Your task to perform on an android device: Clear the cart on bestbuy. Add "acer predator" to the cart on bestbuy Image 0: 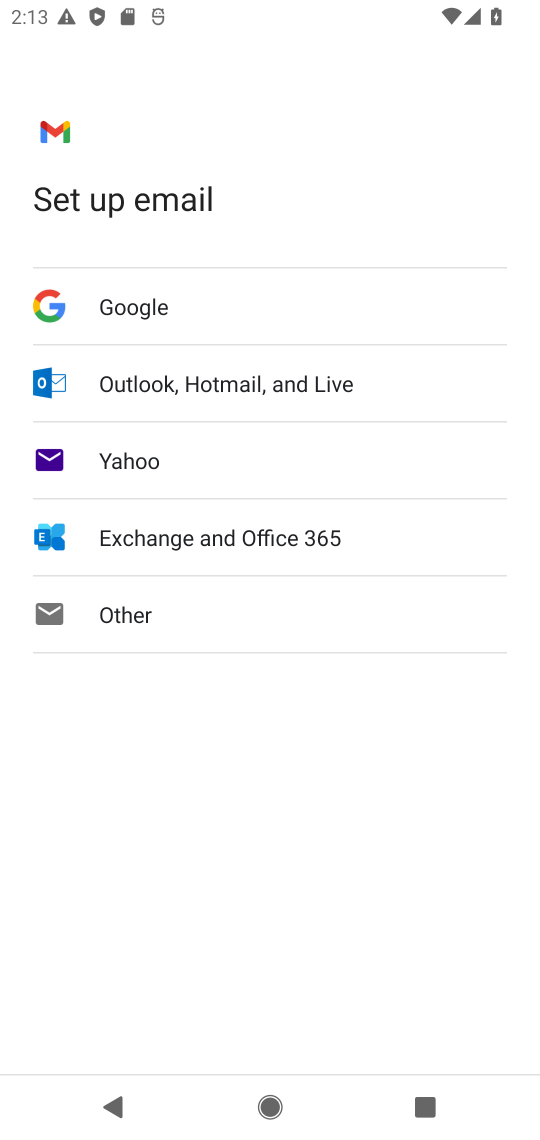
Step 0: press home button
Your task to perform on an android device: Clear the cart on bestbuy. Add "acer predator" to the cart on bestbuy Image 1: 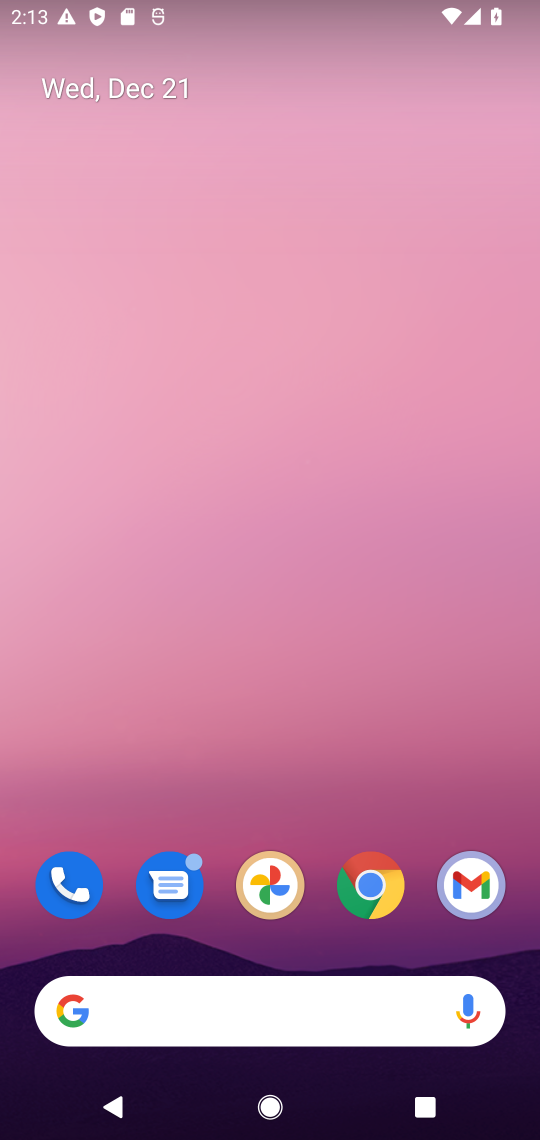
Step 1: drag from (161, 939) to (233, 422)
Your task to perform on an android device: Clear the cart on bestbuy. Add "acer predator" to the cart on bestbuy Image 2: 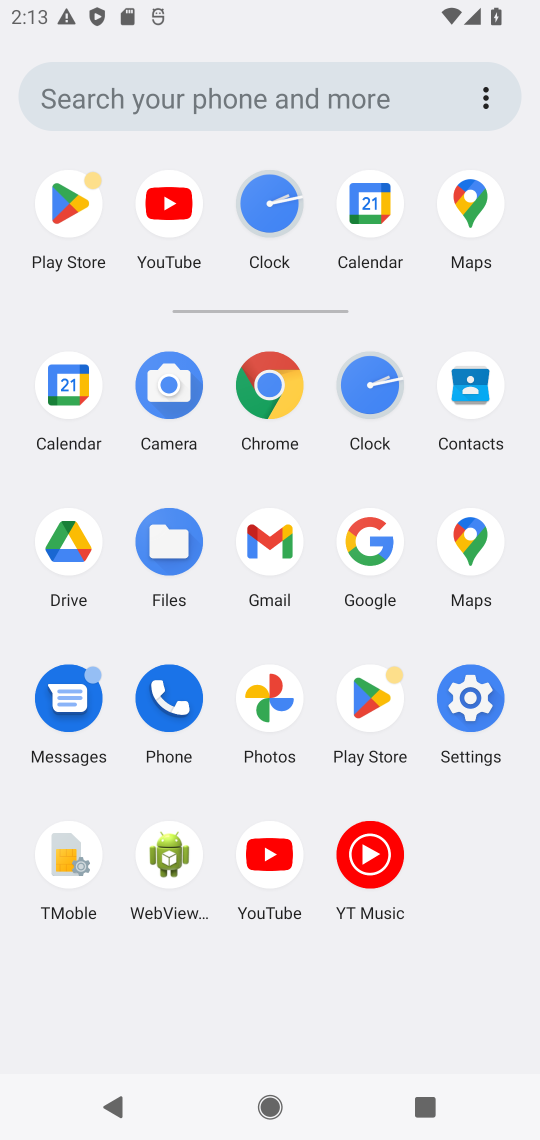
Step 2: click (356, 533)
Your task to perform on an android device: Clear the cart on bestbuy. Add "acer predator" to the cart on bestbuy Image 3: 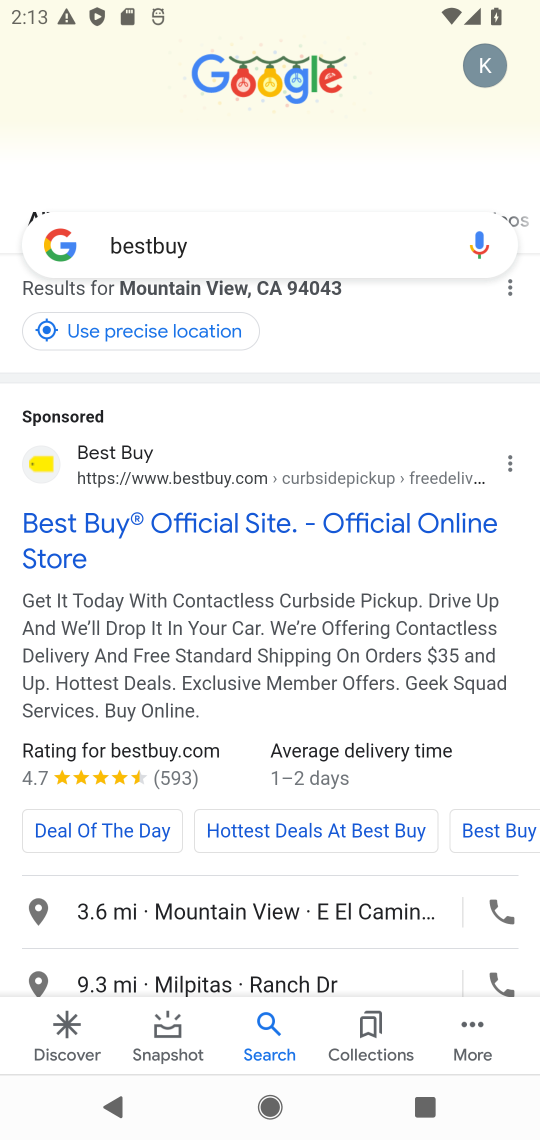
Step 3: click (194, 257)
Your task to perform on an android device: Clear the cart on bestbuy. Add "acer predator" to the cart on bestbuy Image 4: 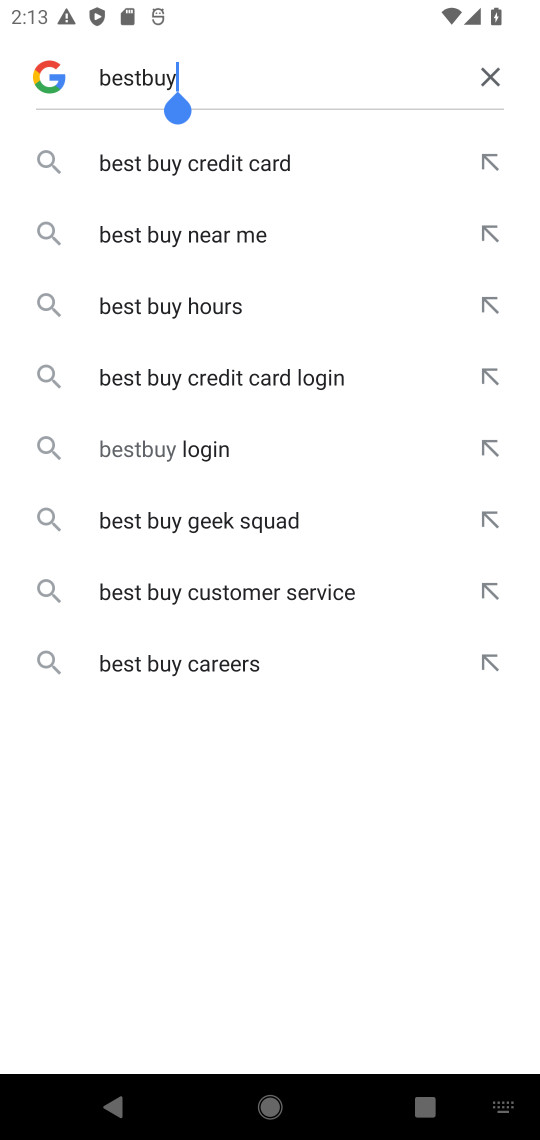
Step 4: click (490, 69)
Your task to perform on an android device: Clear the cart on bestbuy. Add "acer predator" to the cart on bestbuy Image 5: 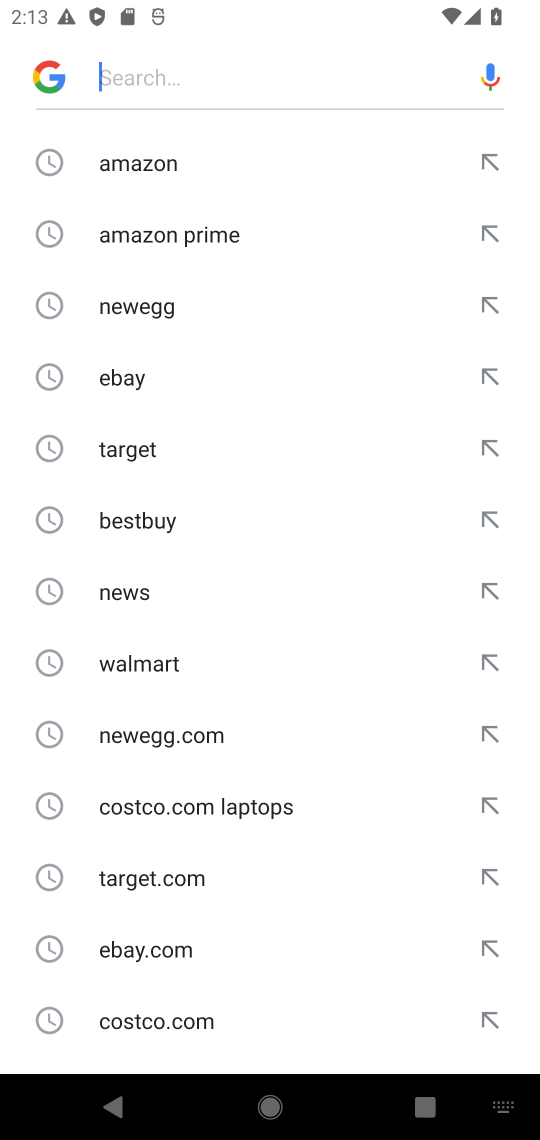
Step 5: click (138, 523)
Your task to perform on an android device: Clear the cart on bestbuy. Add "acer predator" to the cart on bestbuy Image 6: 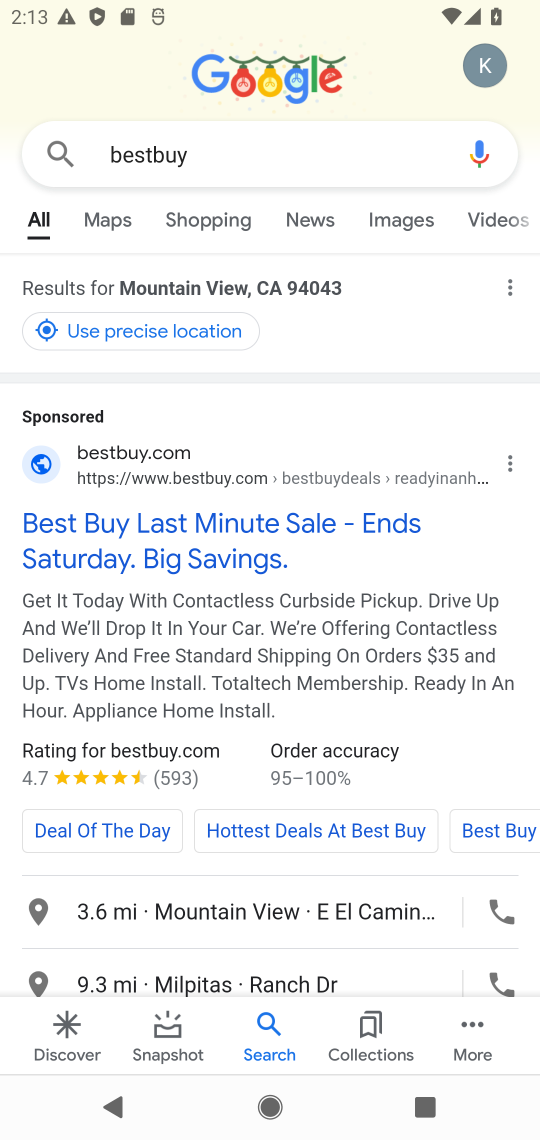
Step 6: click (145, 543)
Your task to perform on an android device: Clear the cart on bestbuy. Add "acer predator" to the cart on bestbuy Image 7: 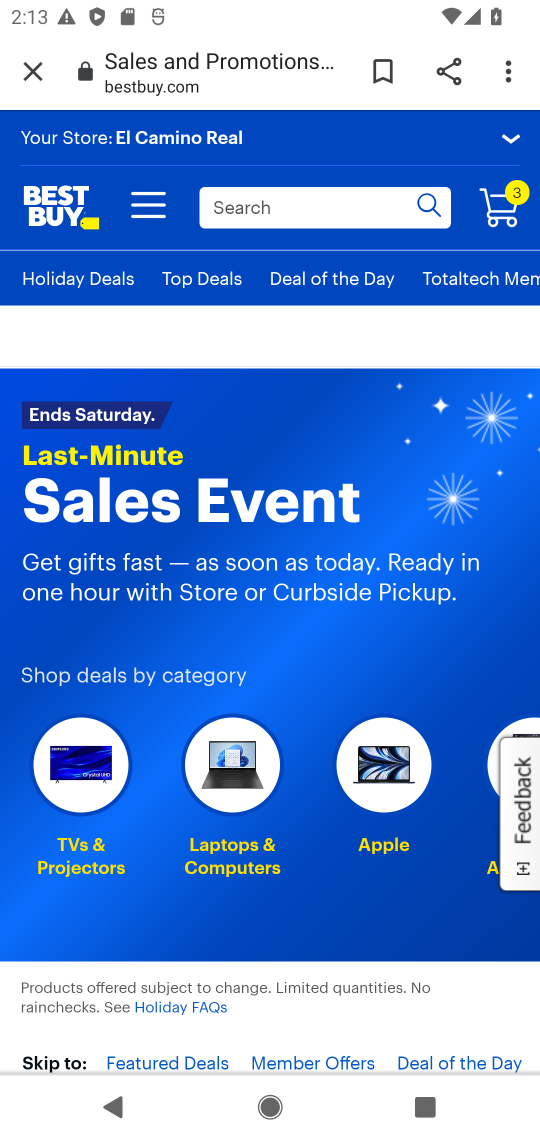
Step 7: click (498, 210)
Your task to perform on an android device: Clear the cart on bestbuy. Add "acer predator" to the cart on bestbuy Image 8: 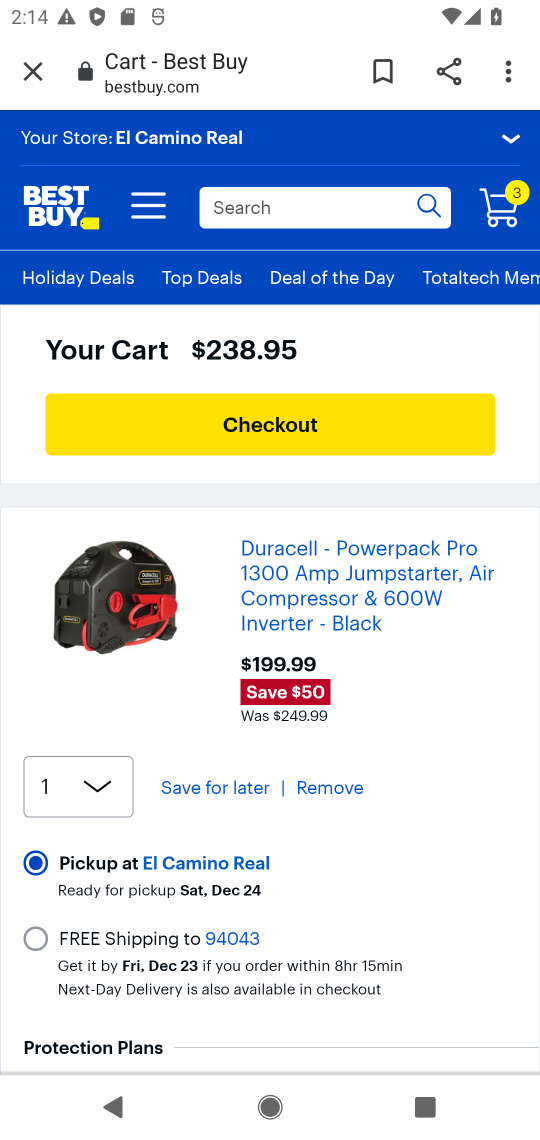
Step 8: drag from (233, 861) to (287, 433)
Your task to perform on an android device: Clear the cart on bestbuy. Add "acer predator" to the cart on bestbuy Image 9: 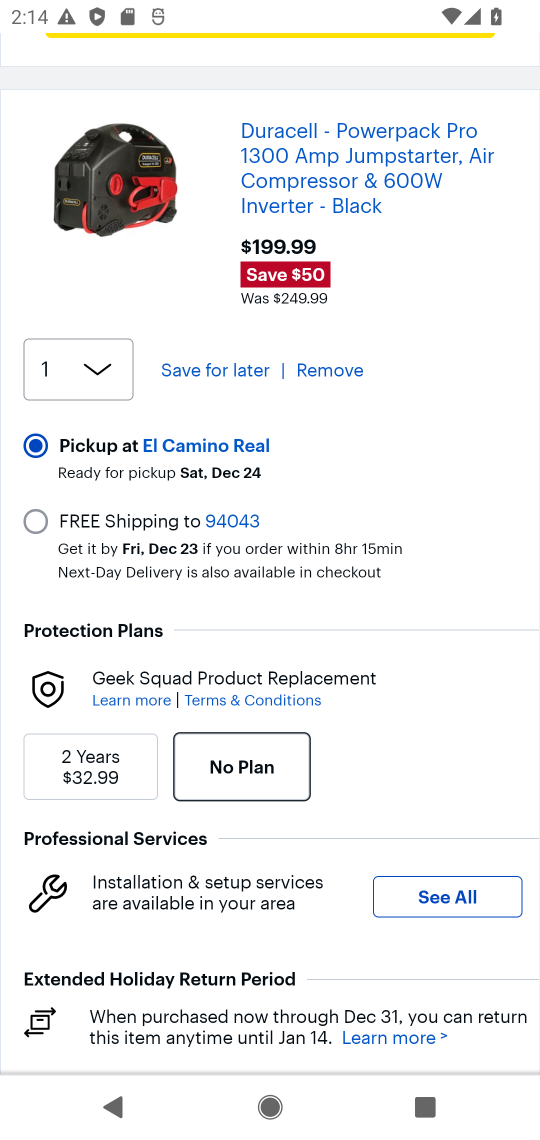
Step 9: click (302, 371)
Your task to perform on an android device: Clear the cart on bestbuy. Add "acer predator" to the cart on bestbuy Image 10: 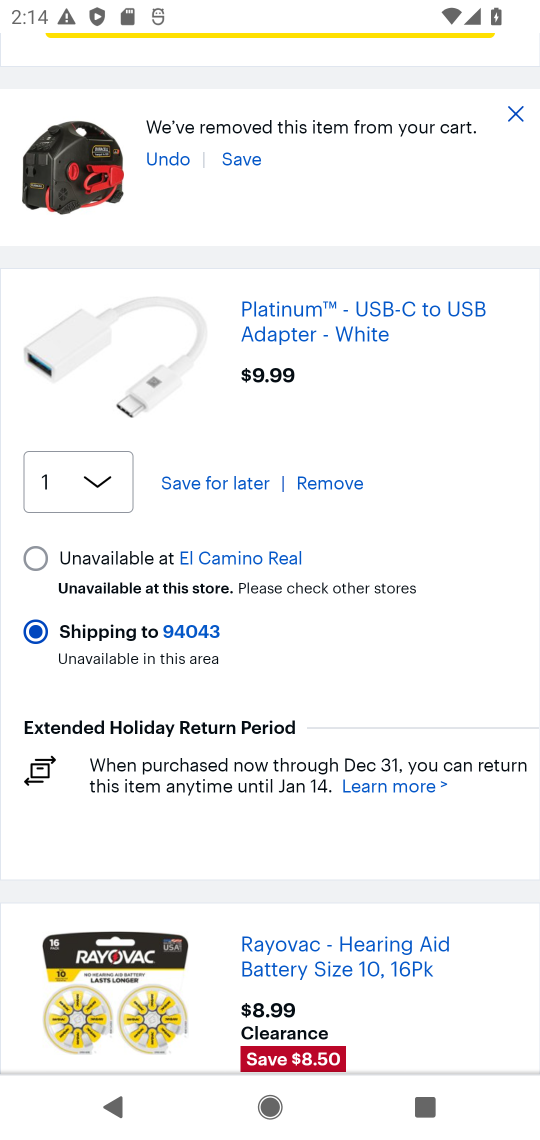
Step 10: click (317, 485)
Your task to perform on an android device: Clear the cart on bestbuy. Add "acer predator" to the cart on bestbuy Image 11: 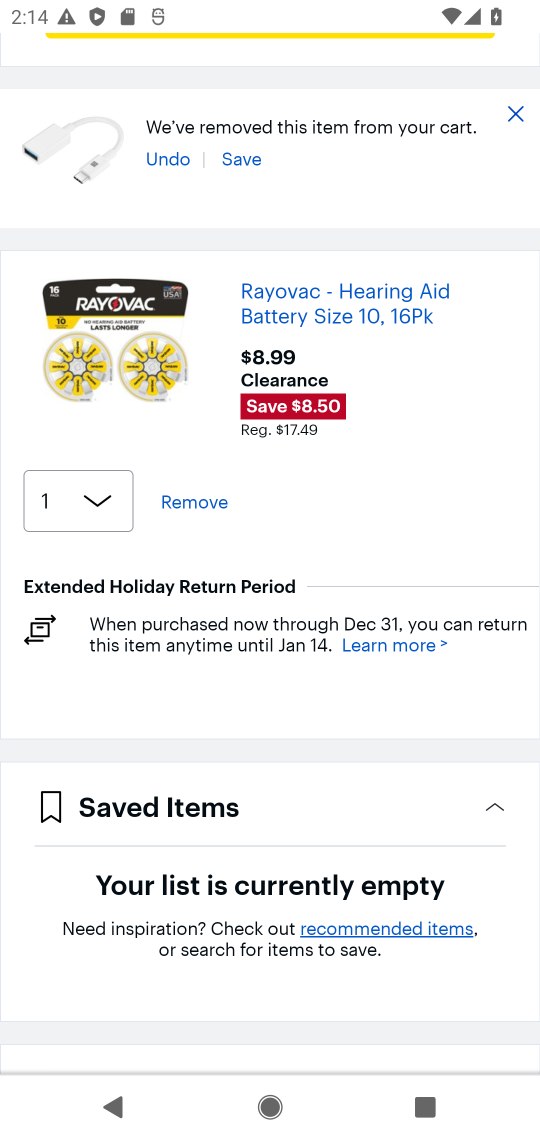
Step 11: click (192, 498)
Your task to perform on an android device: Clear the cart on bestbuy. Add "acer predator" to the cart on bestbuy Image 12: 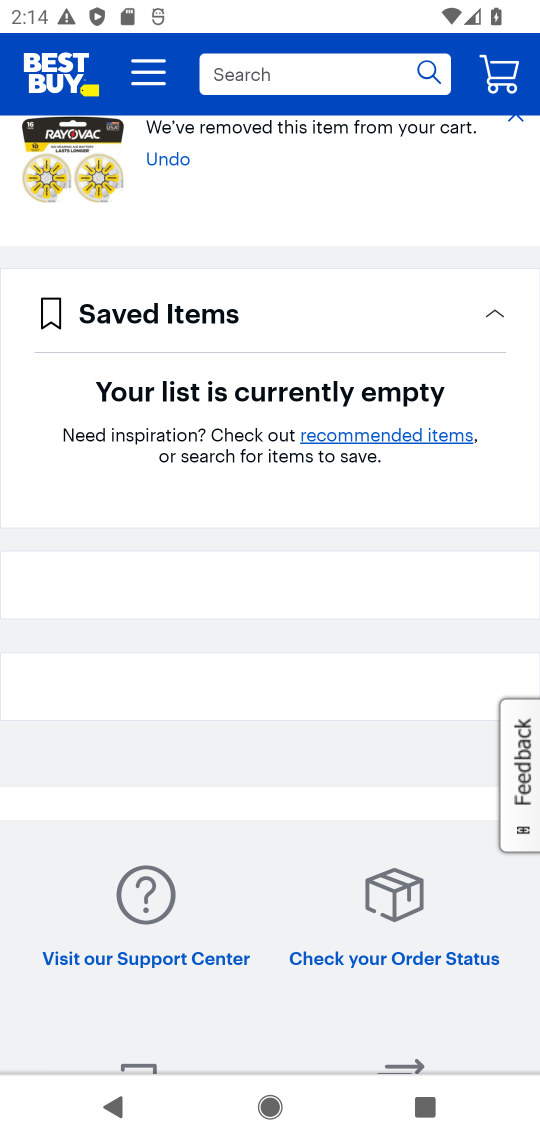
Step 12: click (270, 76)
Your task to perform on an android device: Clear the cart on bestbuy. Add "acer predator" to the cart on bestbuy Image 13: 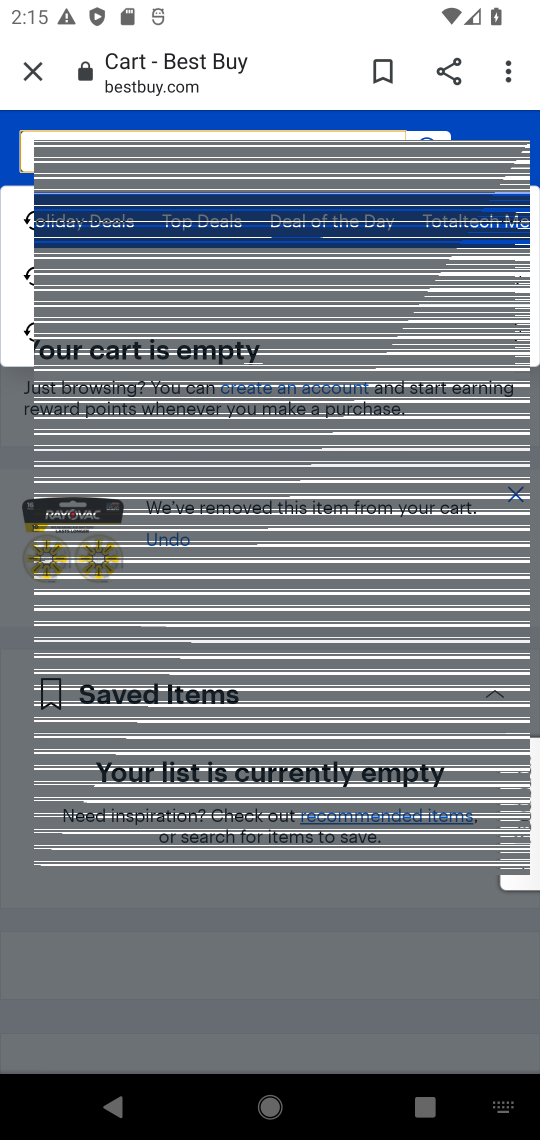
Step 13: type "acer predator"
Your task to perform on an android device: Clear the cart on bestbuy. Add "acer predator" to the cart on bestbuy Image 14: 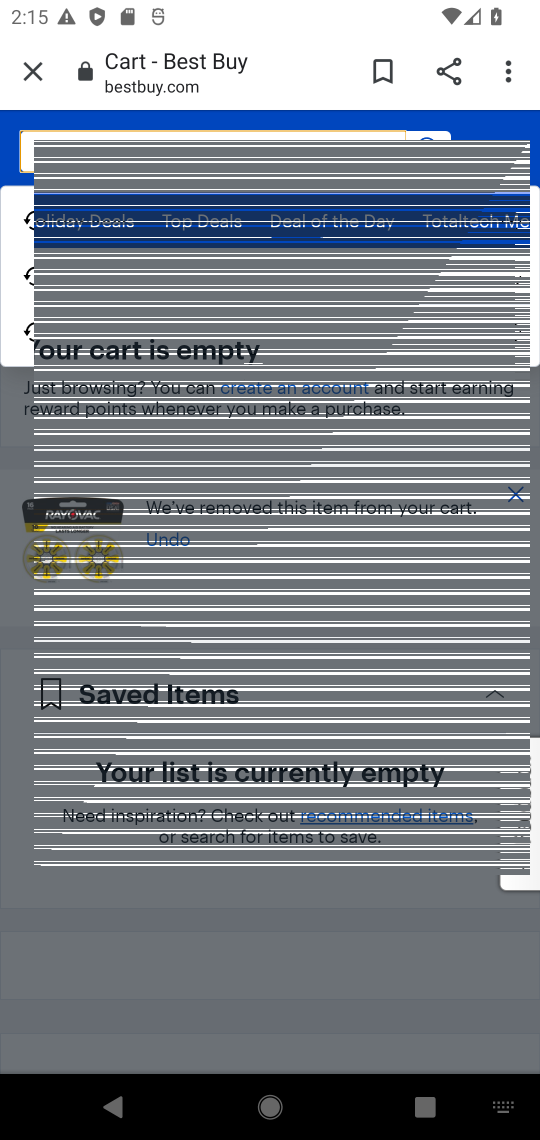
Step 14: click (425, 142)
Your task to perform on an android device: Clear the cart on bestbuy. Add "acer predator" to the cart on bestbuy Image 15: 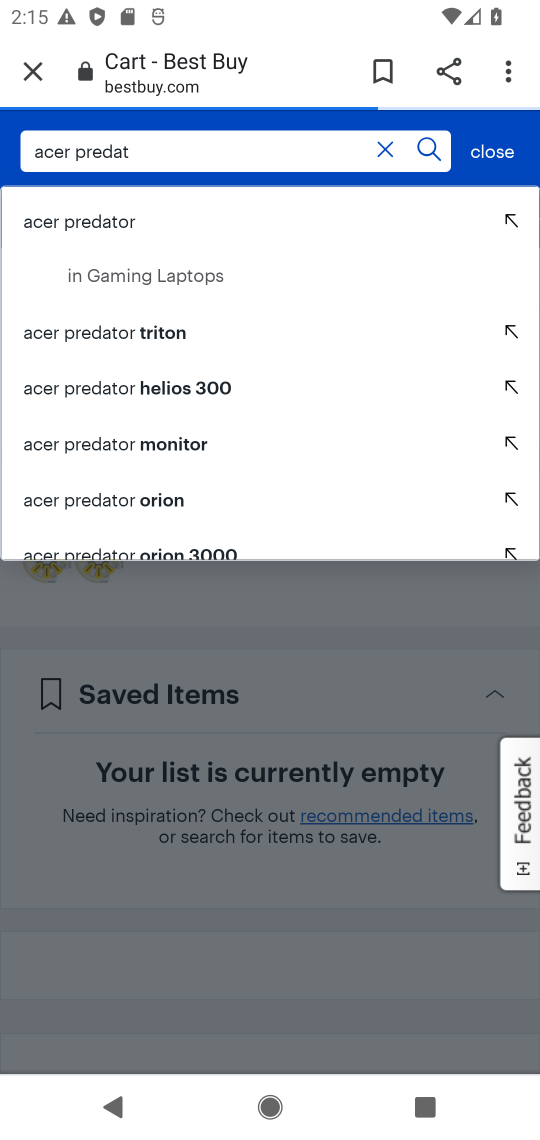
Step 15: click (48, 215)
Your task to perform on an android device: Clear the cart on bestbuy. Add "acer predator" to the cart on bestbuy Image 16: 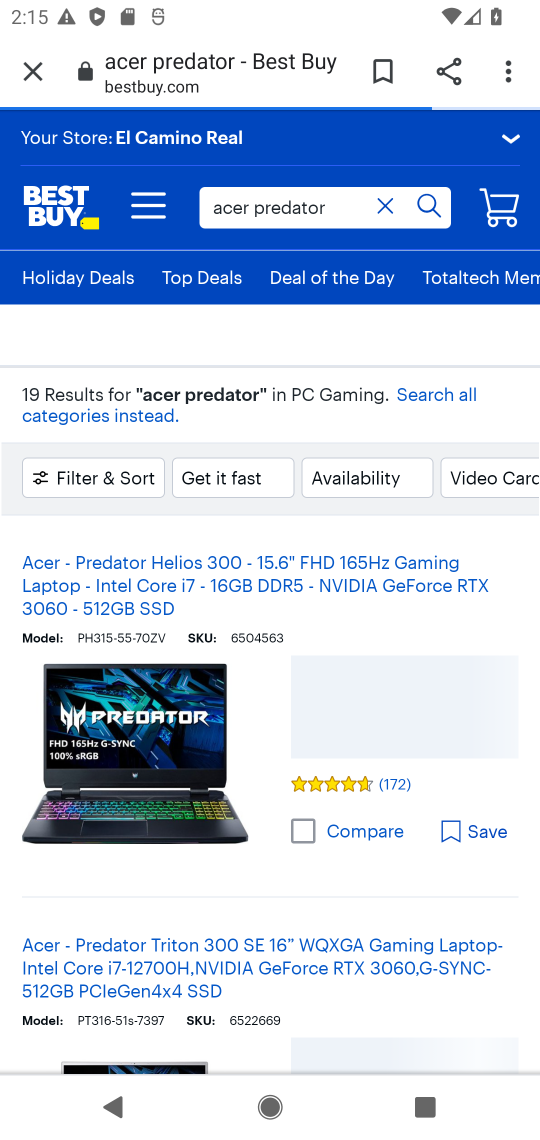
Step 16: drag from (224, 961) to (253, 353)
Your task to perform on an android device: Clear the cart on bestbuy. Add "acer predator" to the cart on bestbuy Image 17: 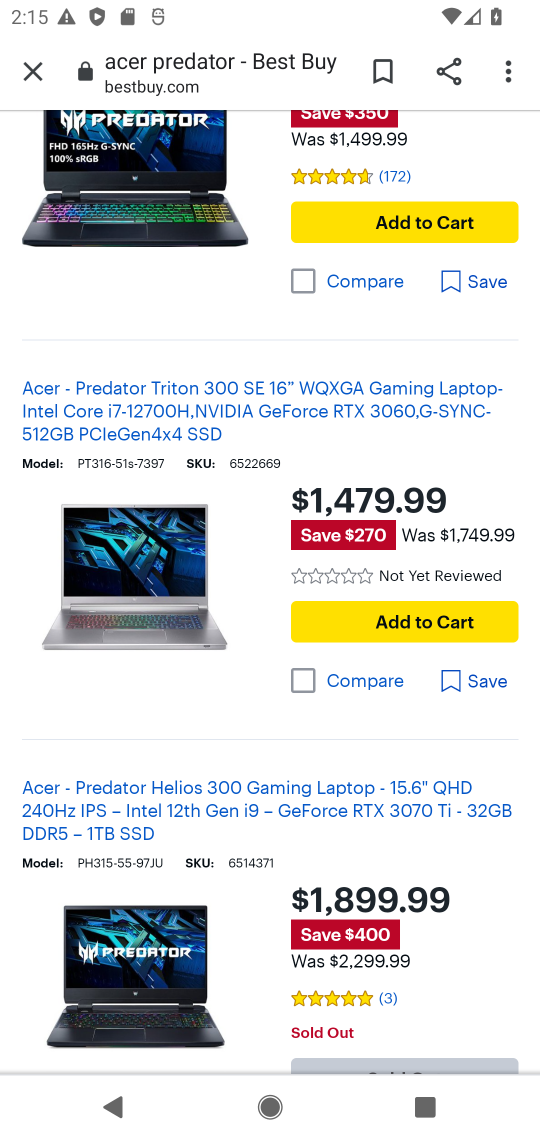
Step 17: click (365, 223)
Your task to perform on an android device: Clear the cart on bestbuy. Add "acer predator" to the cart on bestbuy Image 18: 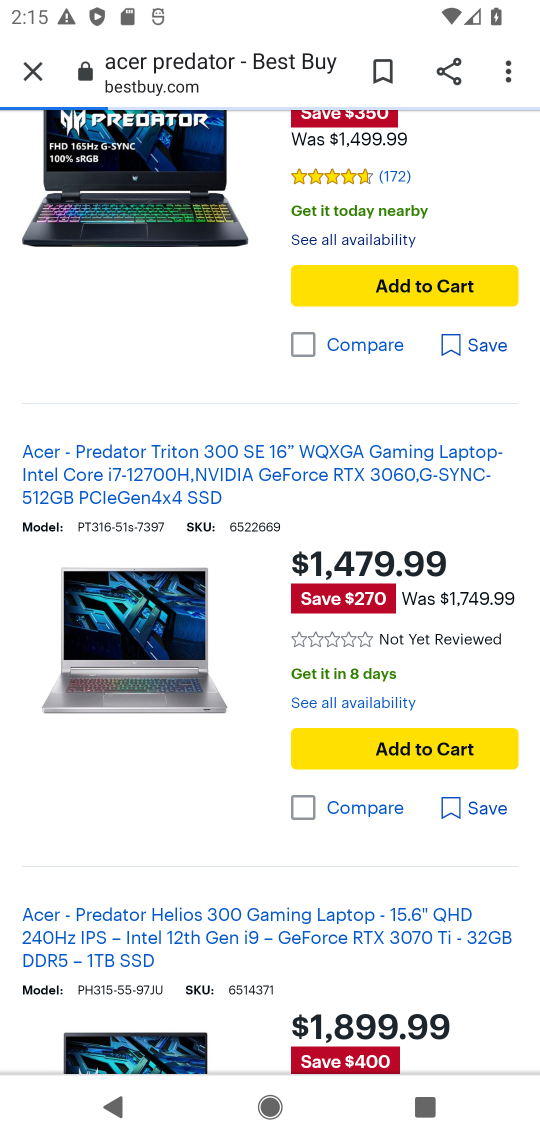
Step 18: click (377, 295)
Your task to perform on an android device: Clear the cart on bestbuy. Add "acer predator" to the cart on bestbuy Image 19: 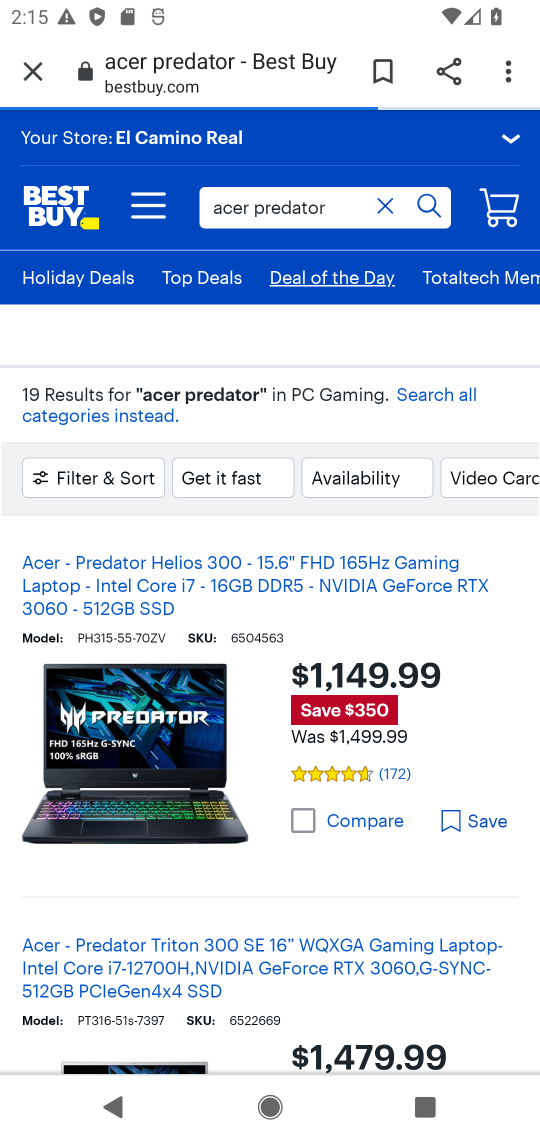
Step 19: drag from (225, 876) to (238, 547)
Your task to perform on an android device: Clear the cart on bestbuy. Add "acer predator" to the cart on bestbuy Image 20: 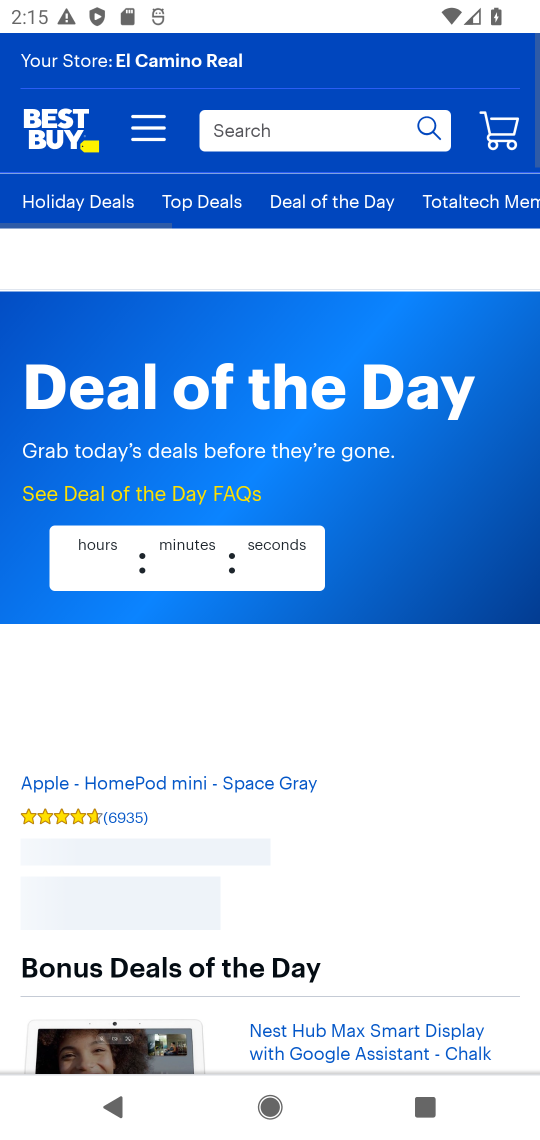
Step 20: click (389, 596)
Your task to perform on an android device: Clear the cart on bestbuy. Add "acer predator" to the cart on bestbuy Image 21: 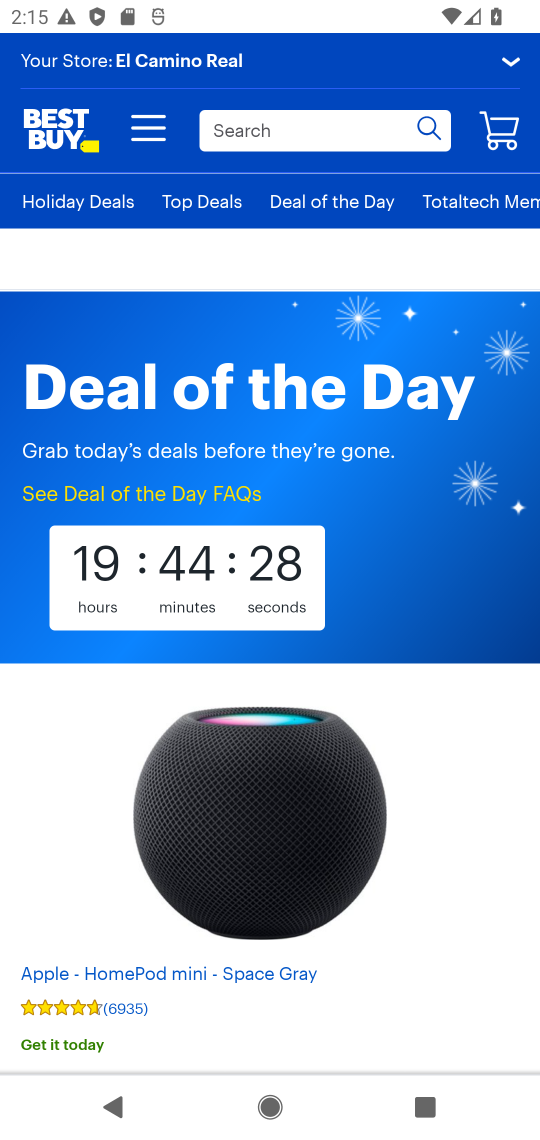
Step 21: task complete